Your task to perform on an android device: all mails in gmail Image 0: 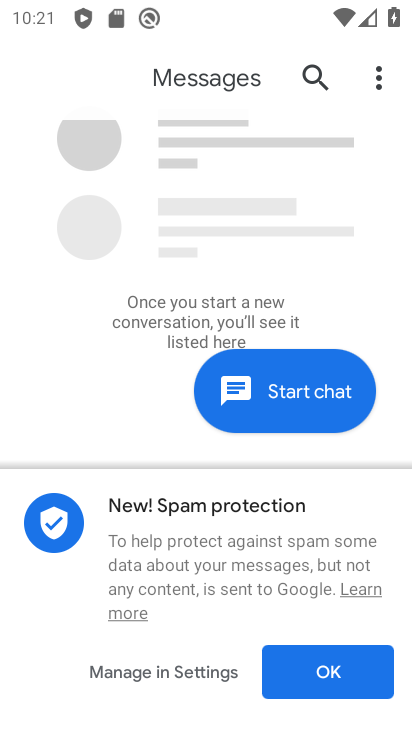
Step 0: press home button
Your task to perform on an android device: all mails in gmail Image 1: 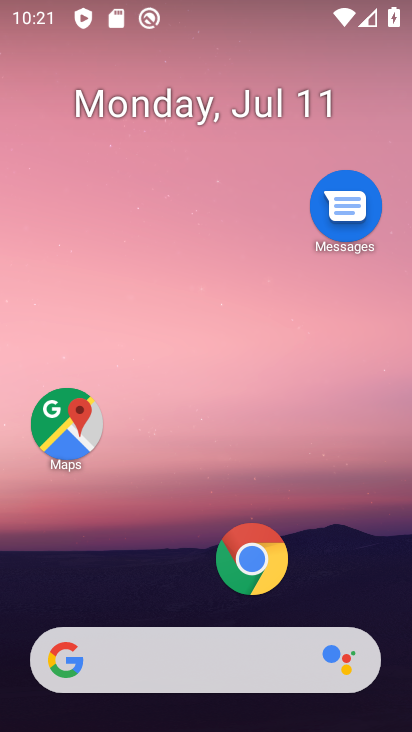
Step 1: drag from (347, 551) to (355, 271)
Your task to perform on an android device: all mails in gmail Image 2: 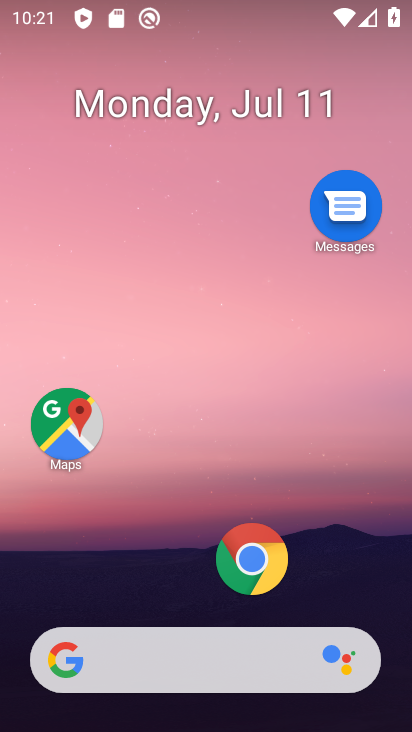
Step 2: drag from (337, 573) to (339, 95)
Your task to perform on an android device: all mails in gmail Image 3: 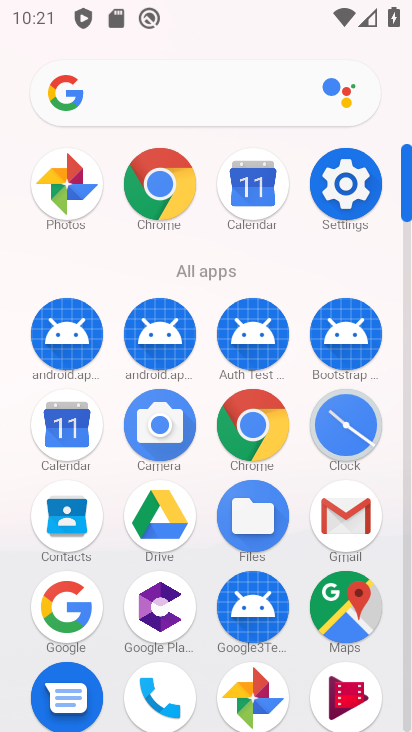
Step 3: click (349, 518)
Your task to perform on an android device: all mails in gmail Image 4: 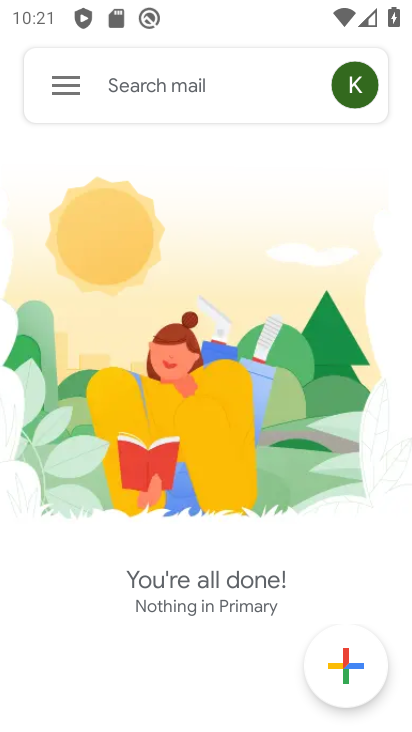
Step 4: click (67, 86)
Your task to perform on an android device: all mails in gmail Image 5: 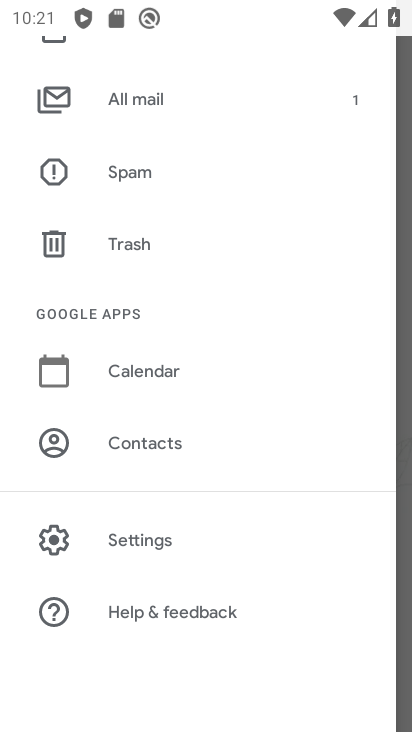
Step 5: drag from (313, 225) to (312, 353)
Your task to perform on an android device: all mails in gmail Image 6: 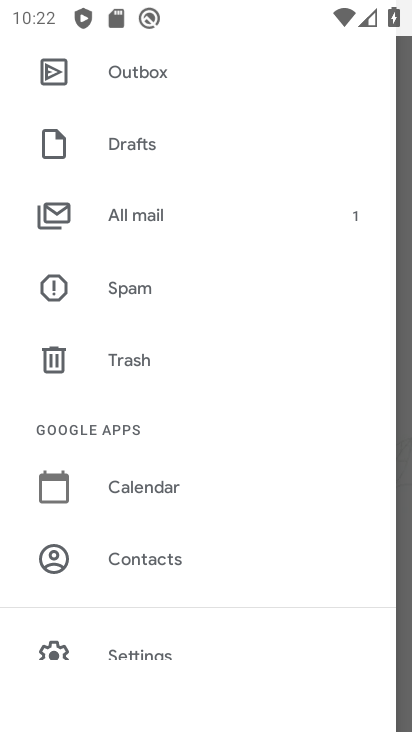
Step 6: drag from (278, 217) to (273, 353)
Your task to perform on an android device: all mails in gmail Image 7: 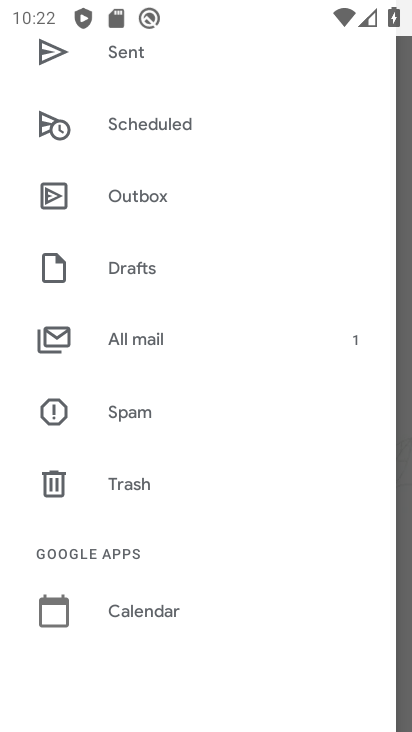
Step 7: click (189, 331)
Your task to perform on an android device: all mails in gmail Image 8: 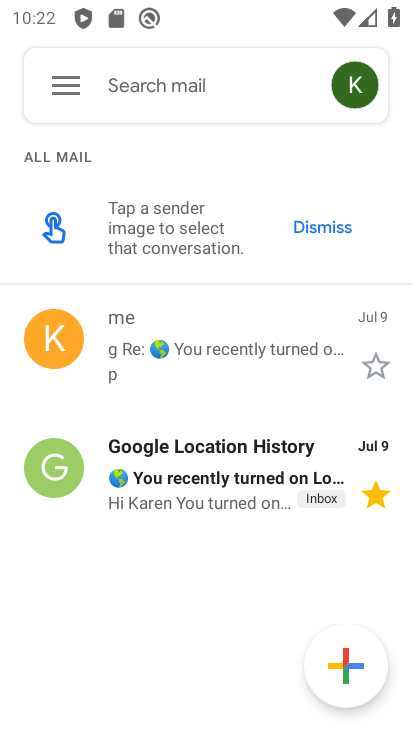
Step 8: task complete